Your task to perform on an android device: Open wifi settings Image 0: 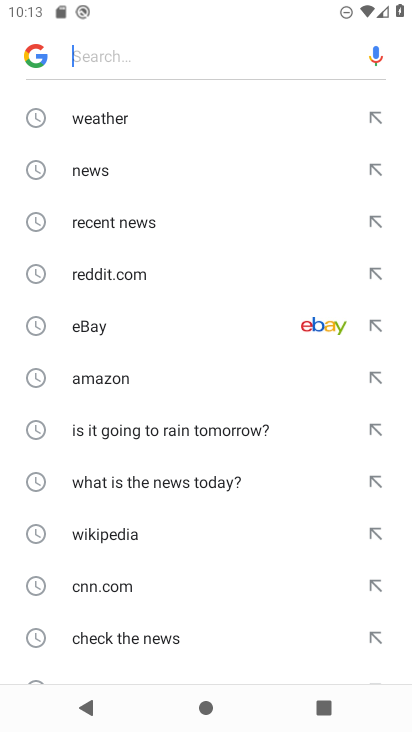
Step 0: drag from (221, 692) to (247, 294)
Your task to perform on an android device: Open wifi settings Image 1: 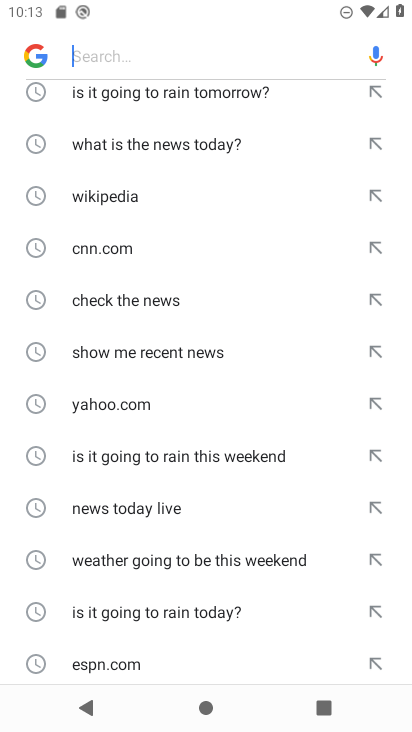
Step 1: press home button
Your task to perform on an android device: Open wifi settings Image 2: 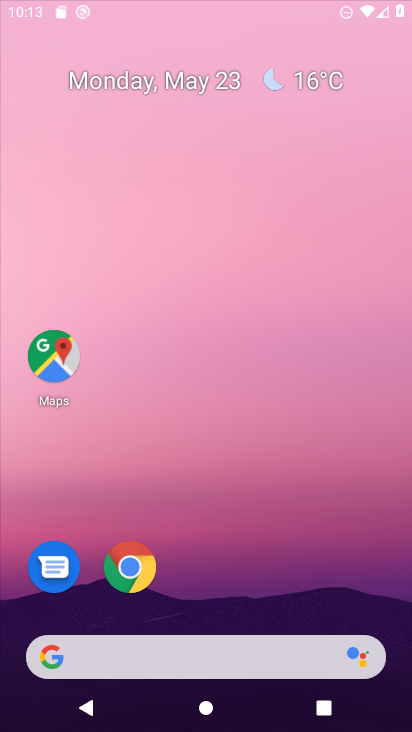
Step 2: drag from (188, 607) to (235, 133)
Your task to perform on an android device: Open wifi settings Image 3: 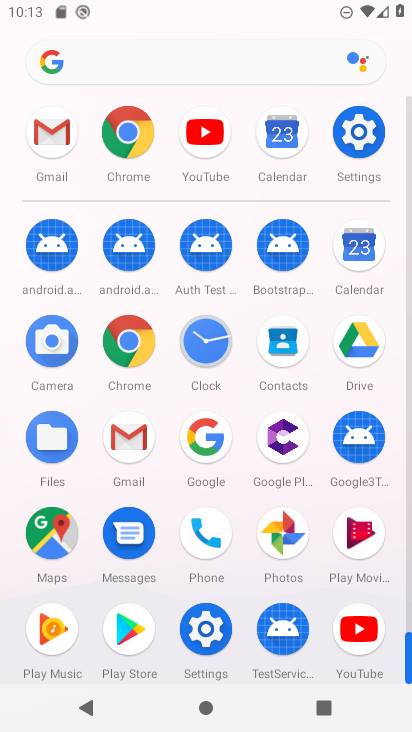
Step 3: click (370, 124)
Your task to perform on an android device: Open wifi settings Image 4: 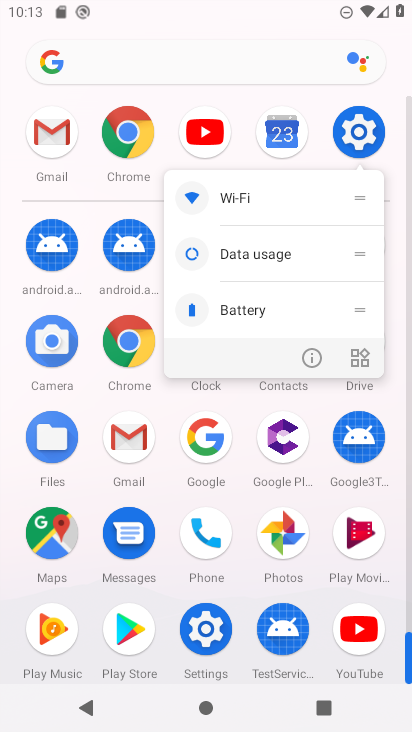
Step 4: click (260, 208)
Your task to perform on an android device: Open wifi settings Image 5: 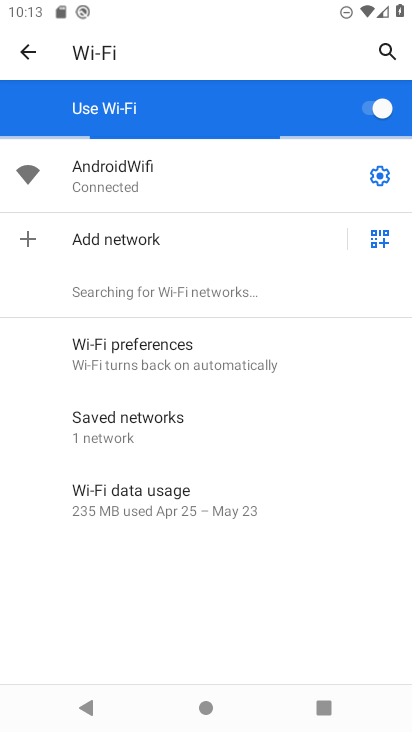
Step 5: click (372, 182)
Your task to perform on an android device: Open wifi settings Image 6: 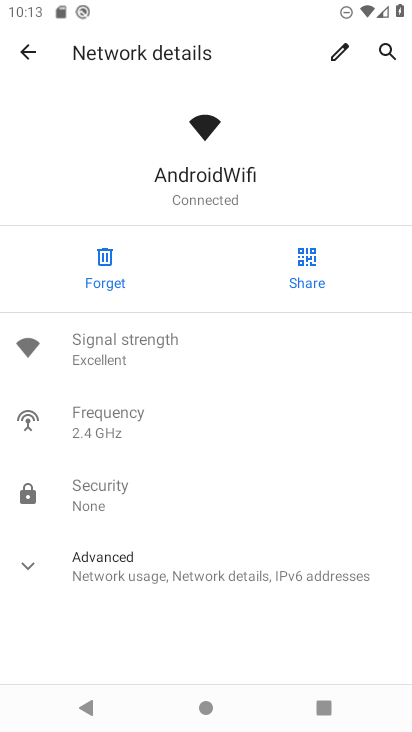
Step 6: click (393, 169)
Your task to perform on an android device: Open wifi settings Image 7: 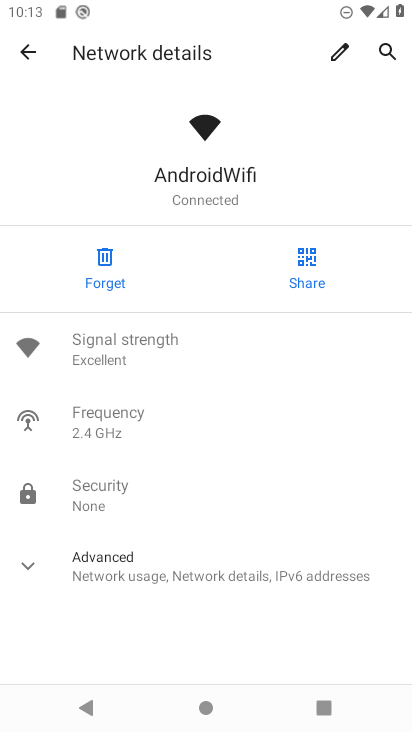
Step 7: task complete